Your task to perform on an android device: toggle priority inbox in the gmail app Image 0: 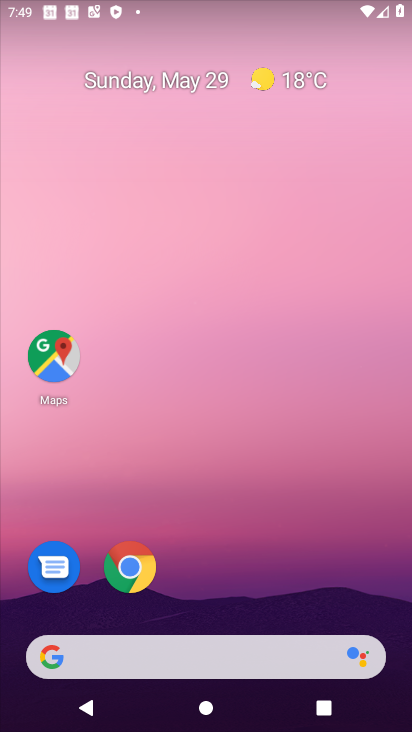
Step 0: drag from (290, 594) to (160, 137)
Your task to perform on an android device: toggle priority inbox in the gmail app Image 1: 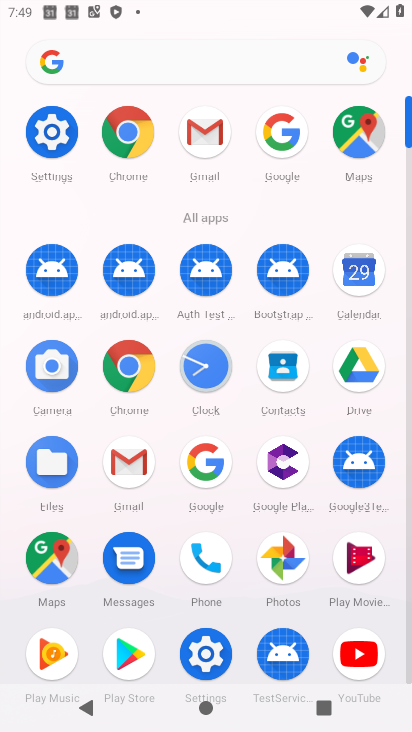
Step 1: click (206, 132)
Your task to perform on an android device: toggle priority inbox in the gmail app Image 2: 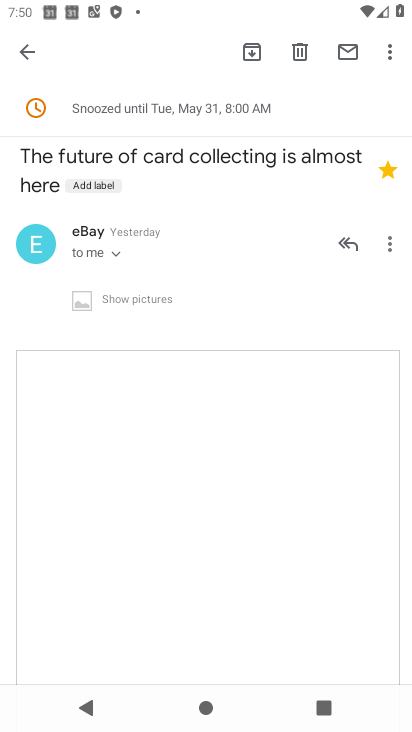
Step 2: press back button
Your task to perform on an android device: toggle priority inbox in the gmail app Image 3: 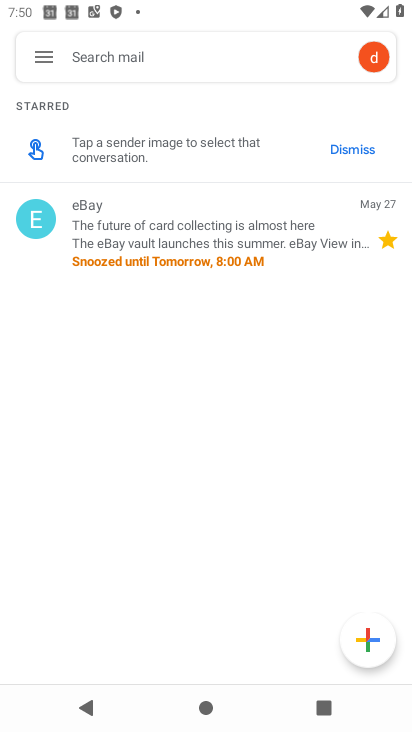
Step 3: click (51, 57)
Your task to perform on an android device: toggle priority inbox in the gmail app Image 4: 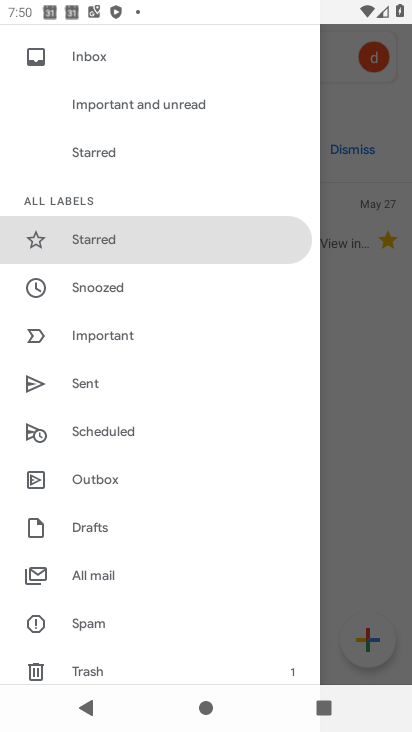
Step 4: drag from (111, 514) to (118, 434)
Your task to perform on an android device: toggle priority inbox in the gmail app Image 5: 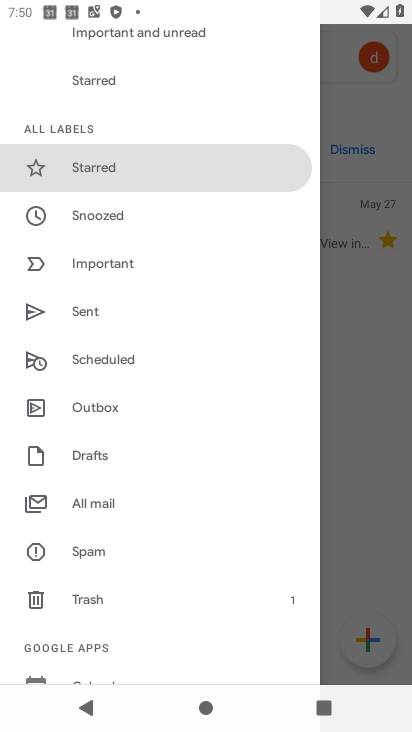
Step 5: drag from (104, 476) to (139, 414)
Your task to perform on an android device: toggle priority inbox in the gmail app Image 6: 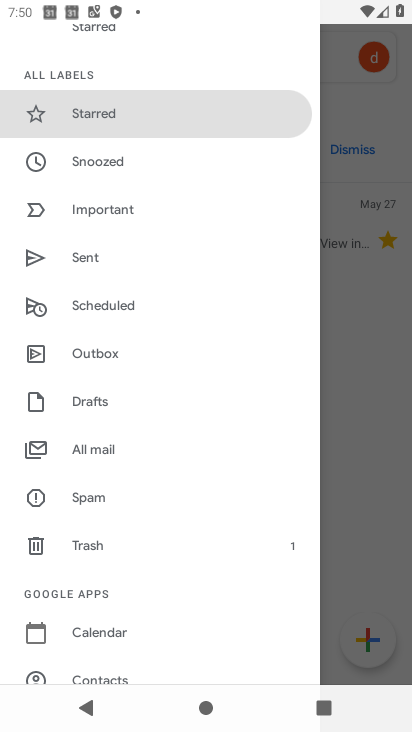
Step 6: drag from (99, 473) to (138, 404)
Your task to perform on an android device: toggle priority inbox in the gmail app Image 7: 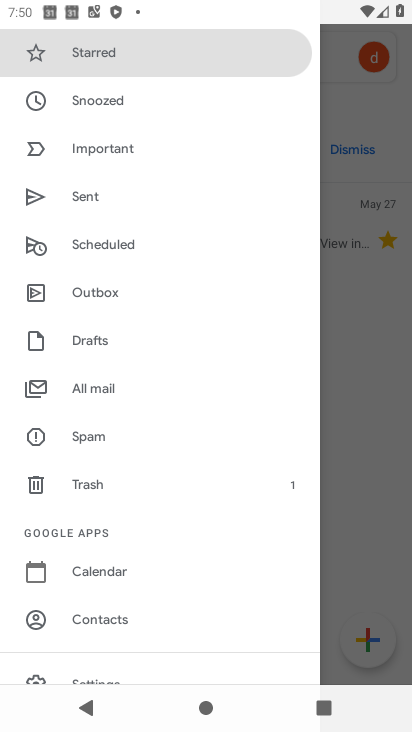
Step 7: drag from (99, 464) to (156, 390)
Your task to perform on an android device: toggle priority inbox in the gmail app Image 8: 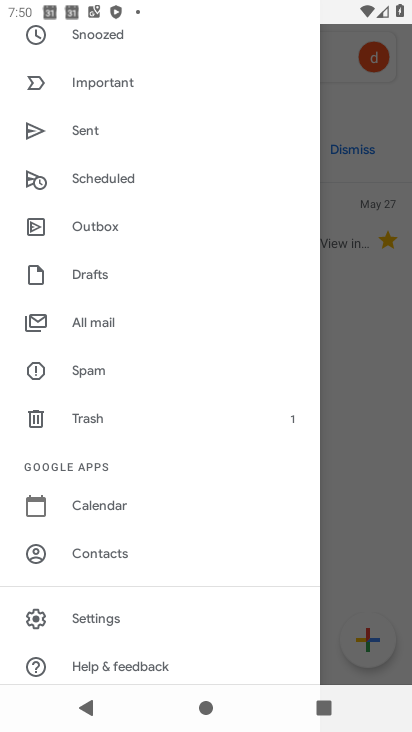
Step 8: drag from (98, 531) to (134, 444)
Your task to perform on an android device: toggle priority inbox in the gmail app Image 9: 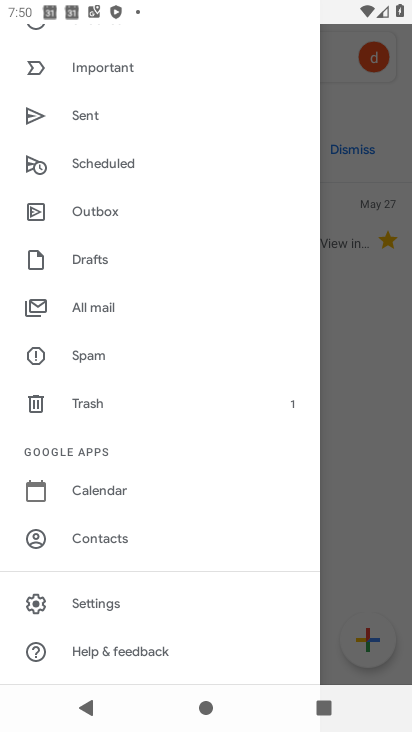
Step 9: click (118, 603)
Your task to perform on an android device: toggle priority inbox in the gmail app Image 10: 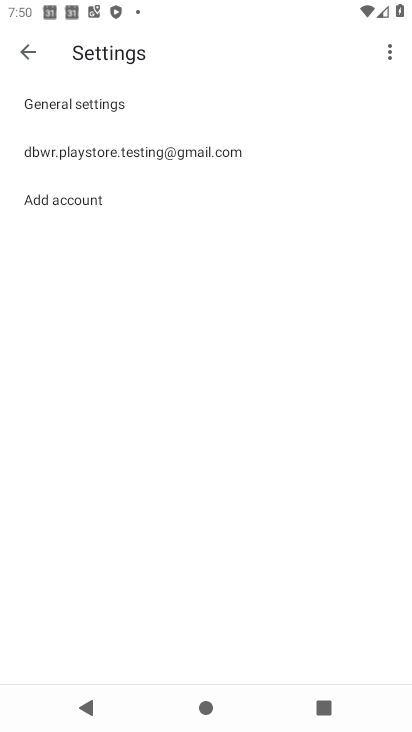
Step 10: click (163, 153)
Your task to perform on an android device: toggle priority inbox in the gmail app Image 11: 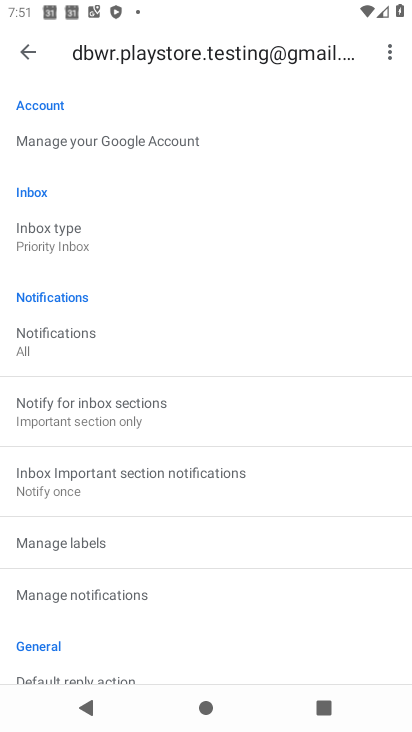
Step 11: click (80, 264)
Your task to perform on an android device: toggle priority inbox in the gmail app Image 12: 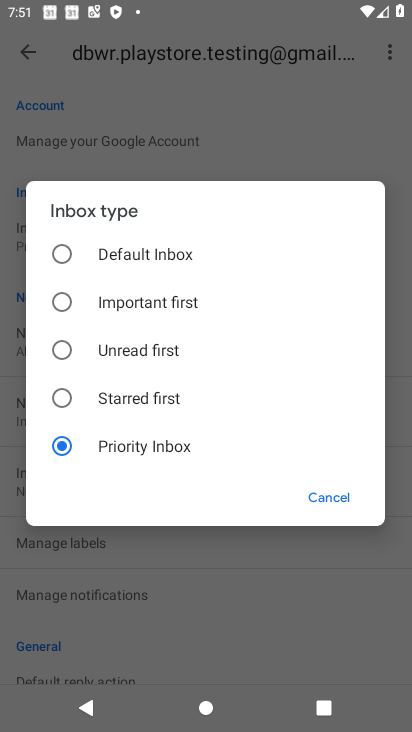
Step 12: click (69, 253)
Your task to perform on an android device: toggle priority inbox in the gmail app Image 13: 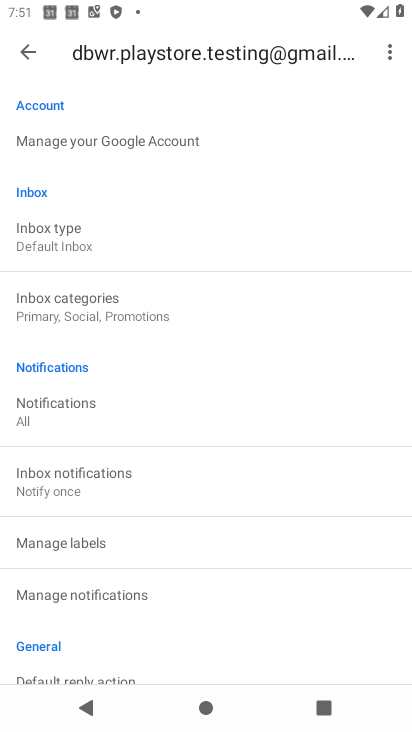
Step 13: task complete